Your task to perform on an android device: What is the recent news? Image 0: 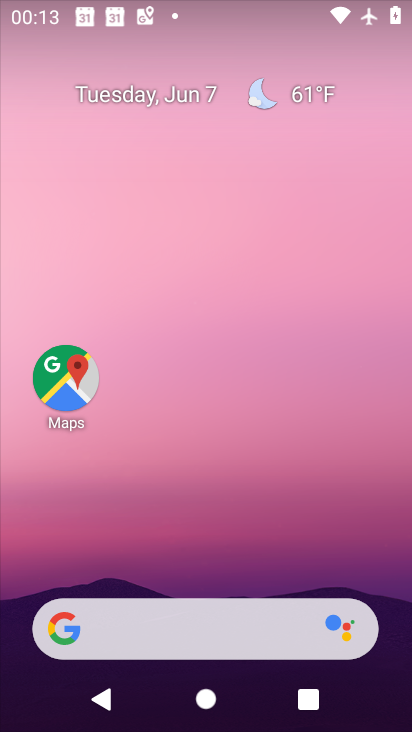
Step 0: drag from (181, 527) to (203, 78)
Your task to perform on an android device: What is the recent news? Image 1: 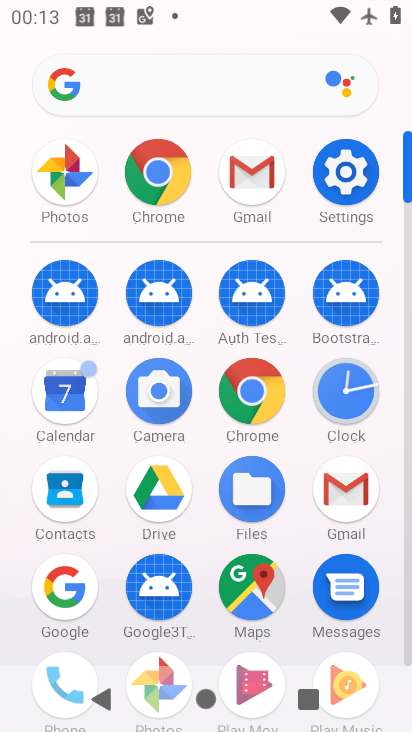
Step 1: click (70, 587)
Your task to perform on an android device: What is the recent news? Image 2: 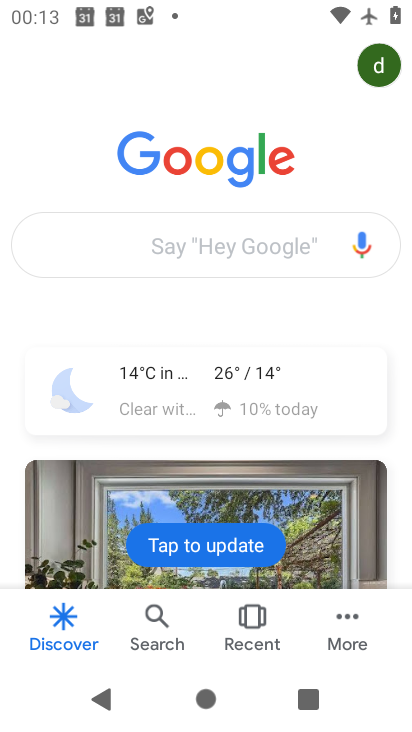
Step 2: click (221, 238)
Your task to perform on an android device: What is the recent news? Image 3: 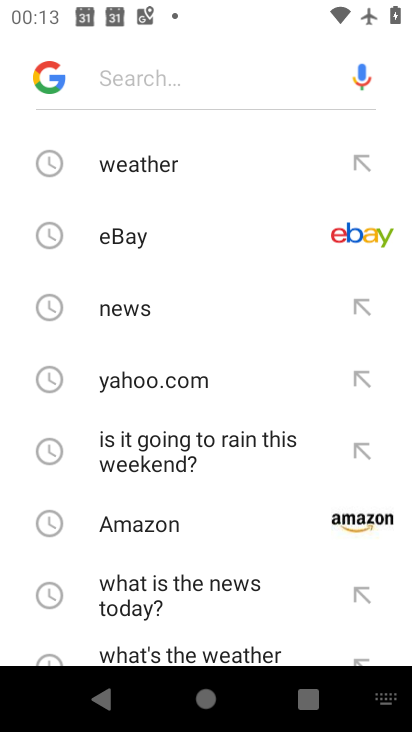
Step 3: type "recent news"
Your task to perform on an android device: What is the recent news? Image 4: 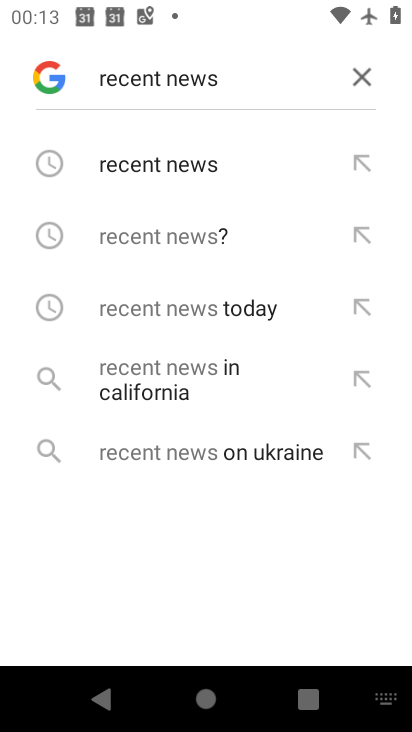
Step 4: click (178, 159)
Your task to perform on an android device: What is the recent news? Image 5: 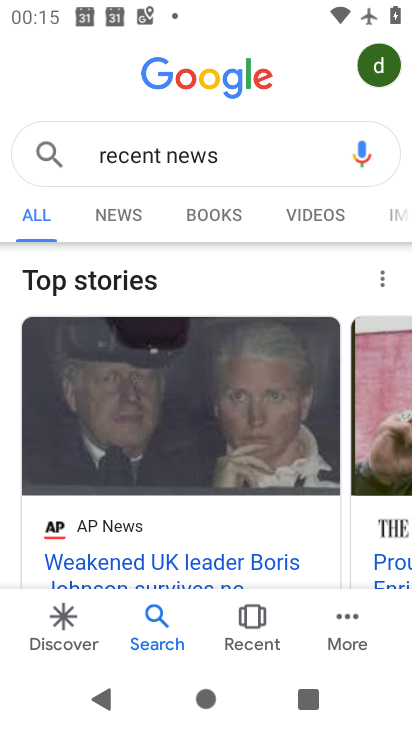
Step 5: task complete